Your task to perform on an android device: delete browsing data in the chrome app Image 0: 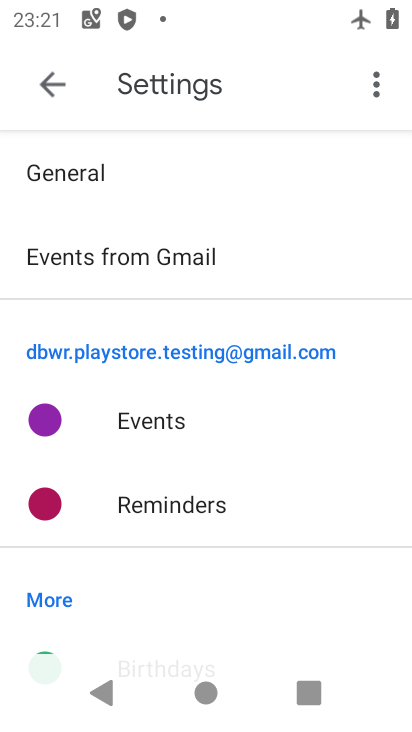
Step 0: press home button
Your task to perform on an android device: delete browsing data in the chrome app Image 1: 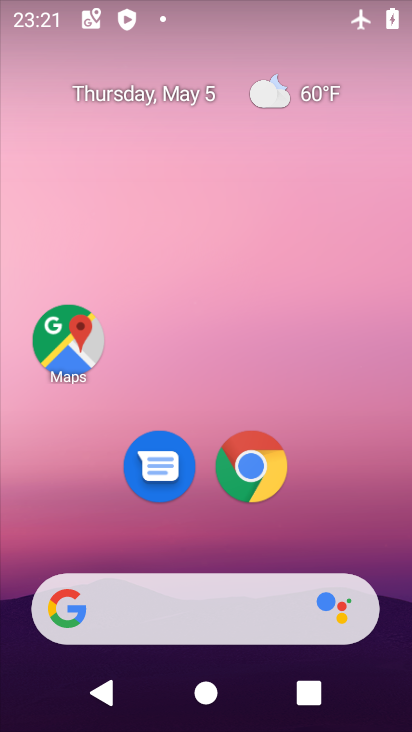
Step 1: click (257, 470)
Your task to perform on an android device: delete browsing data in the chrome app Image 2: 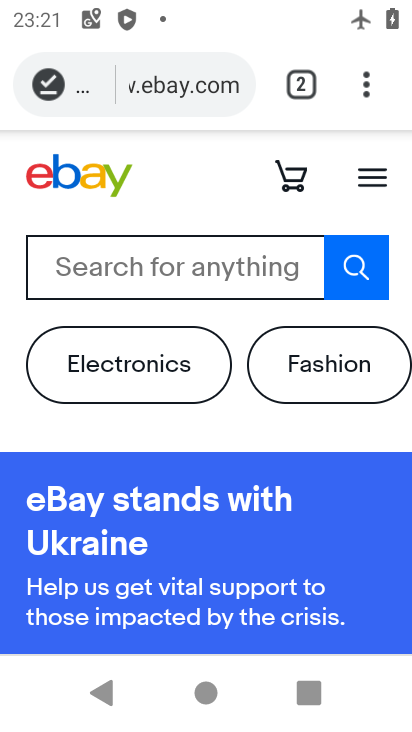
Step 2: click (362, 75)
Your task to perform on an android device: delete browsing data in the chrome app Image 3: 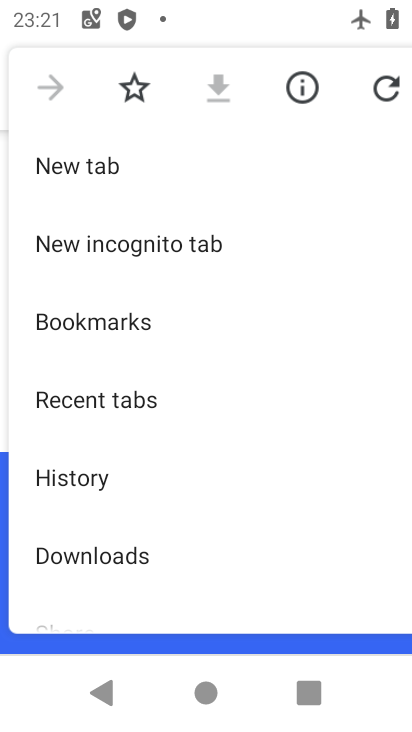
Step 3: click (76, 474)
Your task to perform on an android device: delete browsing data in the chrome app Image 4: 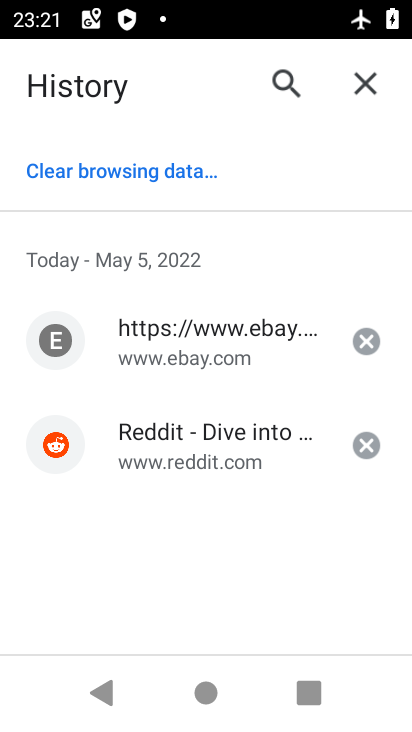
Step 4: click (83, 180)
Your task to perform on an android device: delete browsing data in the chrome app Image 5: 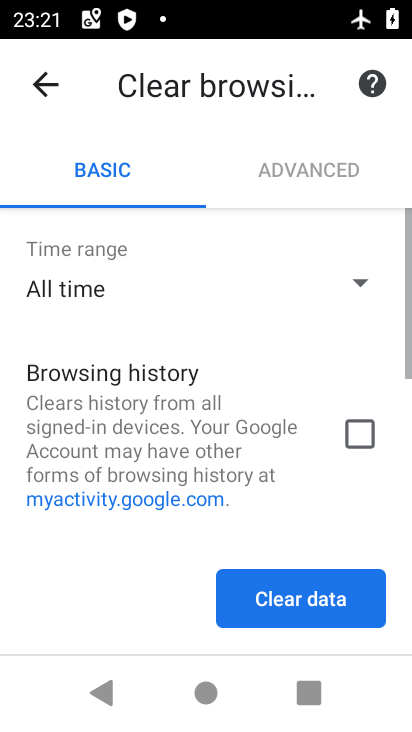
Step 5: click (364, 435)
Your task to perform on an android device: delete browsing data in the chrome app Image 6: 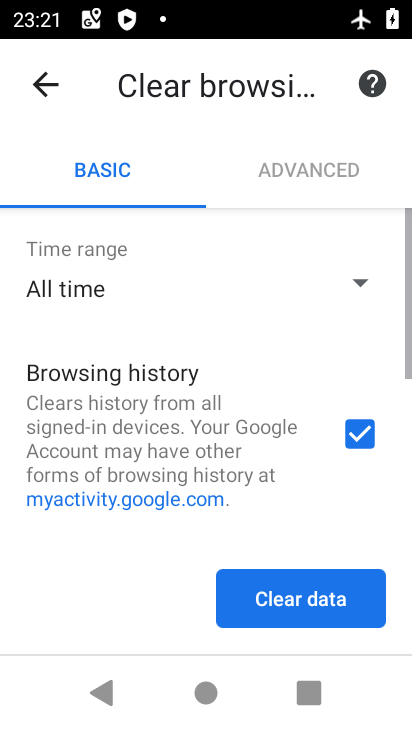
Step 6: drag from (301, 515) to (287, 229)
Your task to perform on an android device: delete browsing data in the chrome app Image 7: 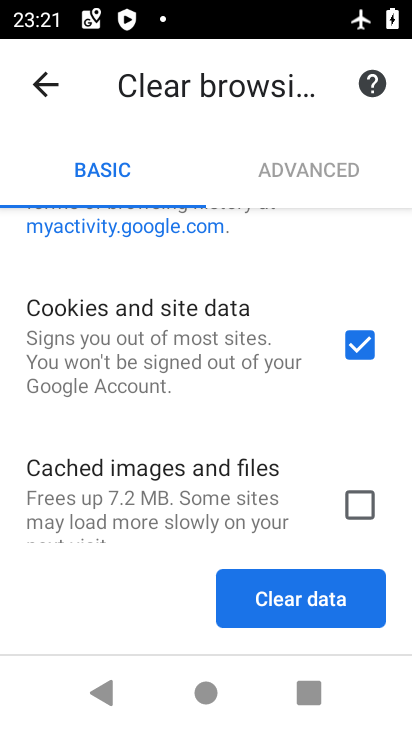
Step 7: click (358, 512)
Your task to perform on an android device: delete browsing data in the chrome app Image 8: 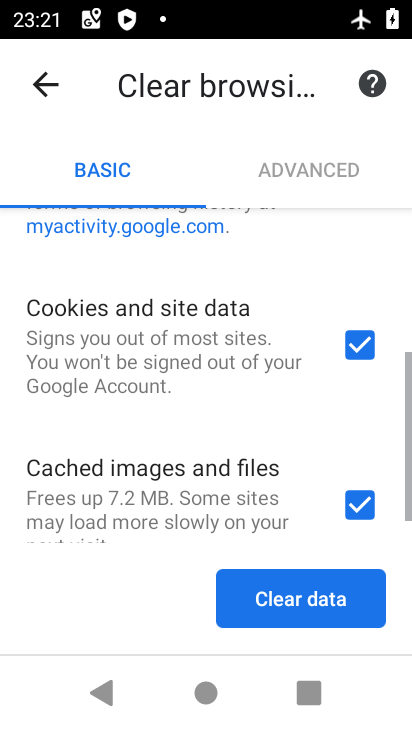
Step 8: drag from (116, 506) to (177, 232)
Your task to perform on an android device: delete browsing data in the chrome app Image 9: 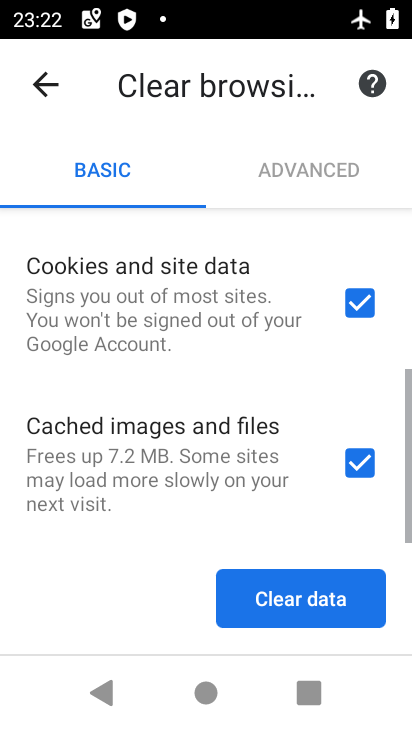
Step 9: click (263, 582)
Your task to perform on an android device: delete browsing data in the chrome app Image 10: 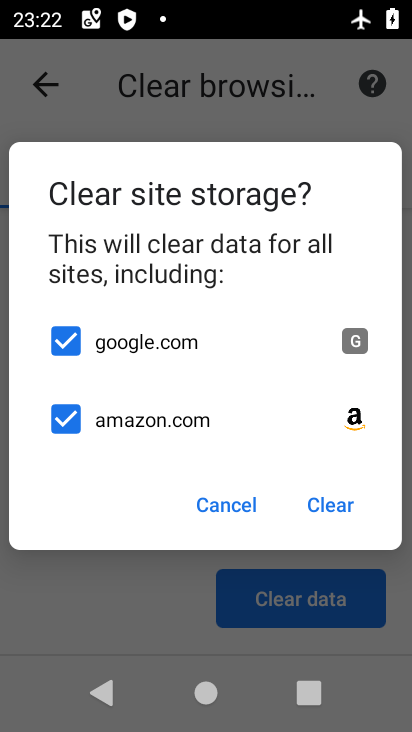
Step 10: click (310, 505)
Your task to perform on an android device: delete browsing data in the chrome app Image 11: 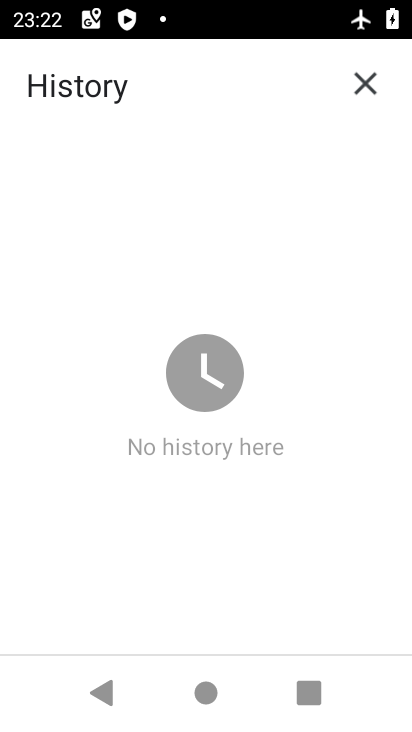
Step 11: task complete